Your task to perform on an android device: delete browsing data in the chrome app Image 0: 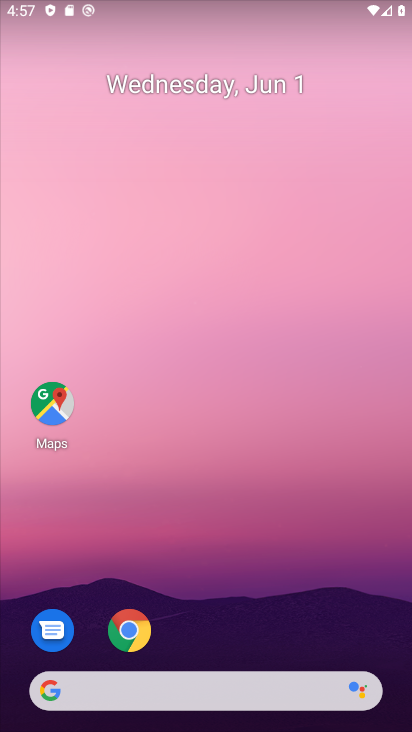
Step 0: click (132, 639)
Your task to perform on an android device: delete browsing data in the chrome app Image 1: 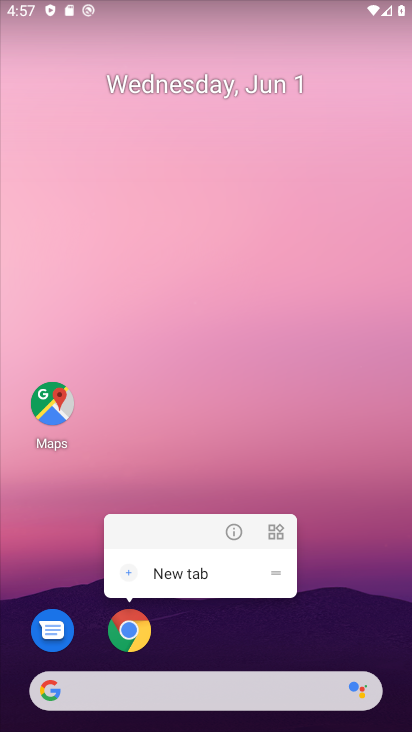
Step 1: click (133, 647)
Your task to perform on an android device: delete browsing data in the chrome app Image 2: 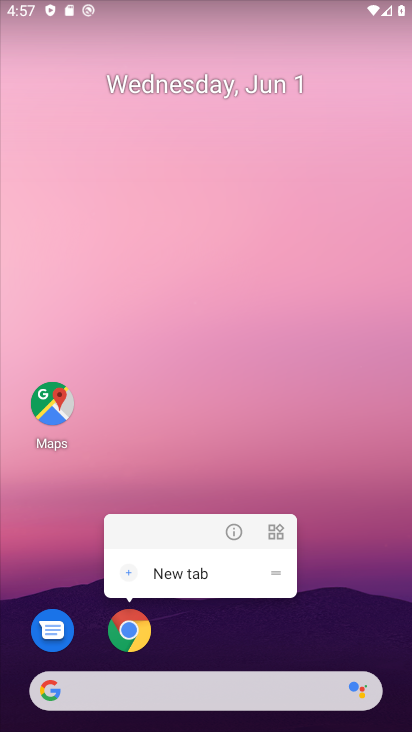
Step 2: click (122, 644)
Your task to perform on an android device: delete browsing data in the chrome app Image 3: 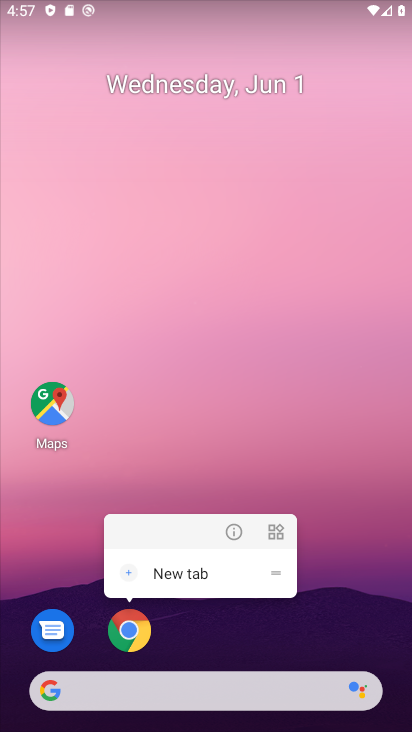
Step 3: click (133, 643)
Your task to perform on an android device: delete browsing data in the chrome app Image 4: 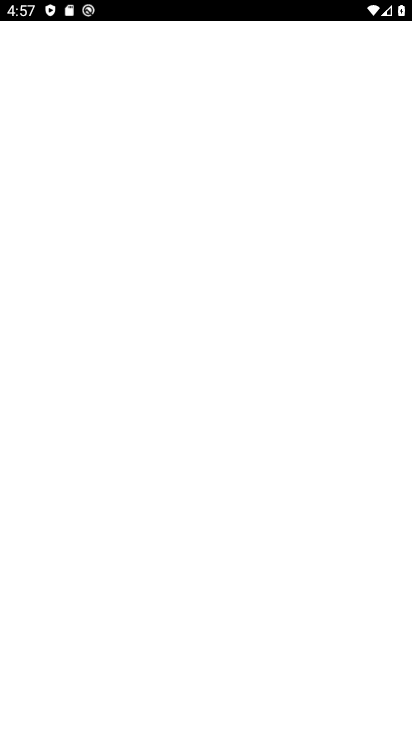
Step 4: click (133, 641)
Your task to perform on an android device: delete browsing data in the chrome app Image 5: 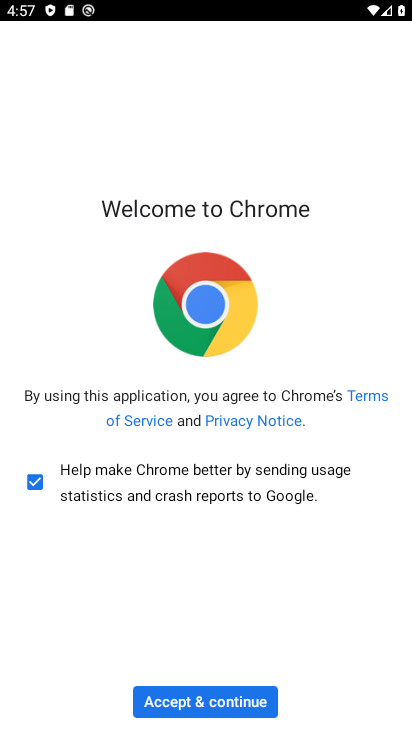
Step 5: click (194, 693)
Your task to perform on an android device: delete browsing data in the chrome app Image 6: 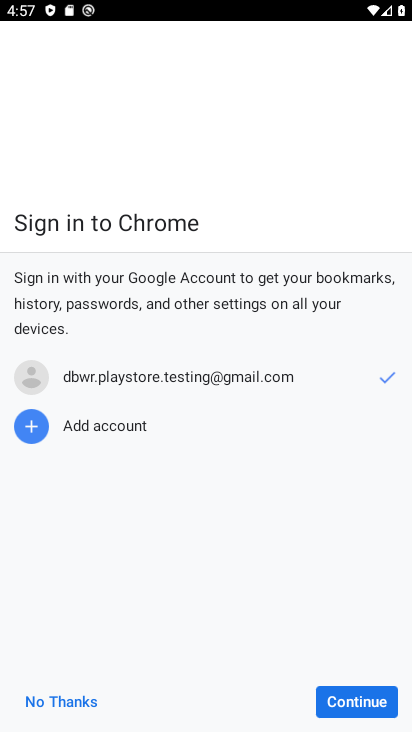
Step 6: click (329, 701)
Your task to perform on an android device: delete browsing data in the chrome app Image 7: 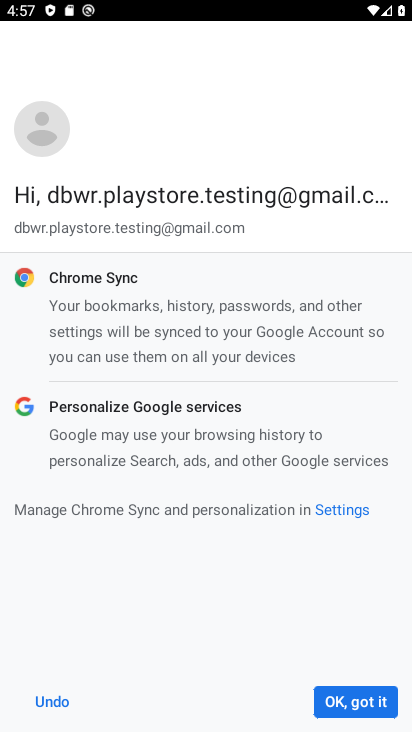
Step 7: click (357, 705)
Your task to perform on an android device: delete browsing data in the chrome app Image 8: 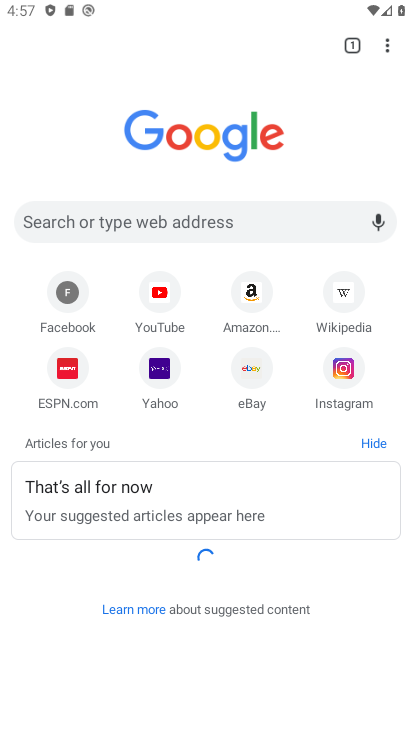
Step 8: drag from (392, 57) to (318, 364)
Your task to perform on an android device: delete browsing data in the chrome app Image 9: 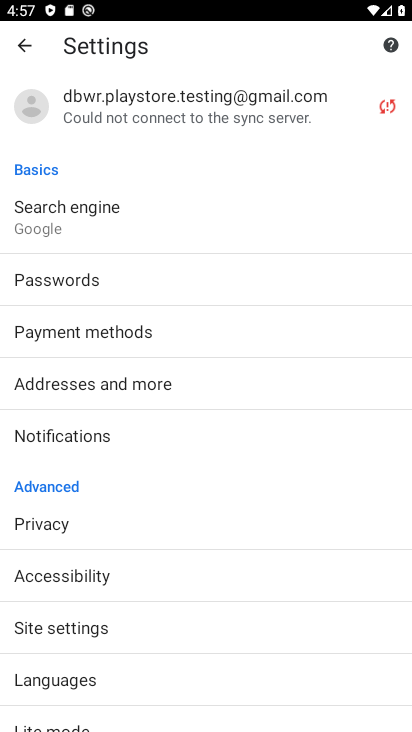
Step 9: drag from (228, 600) to (289, 334)
Your task to perform on an android device: delete browsing data in the chrome app Image 10: 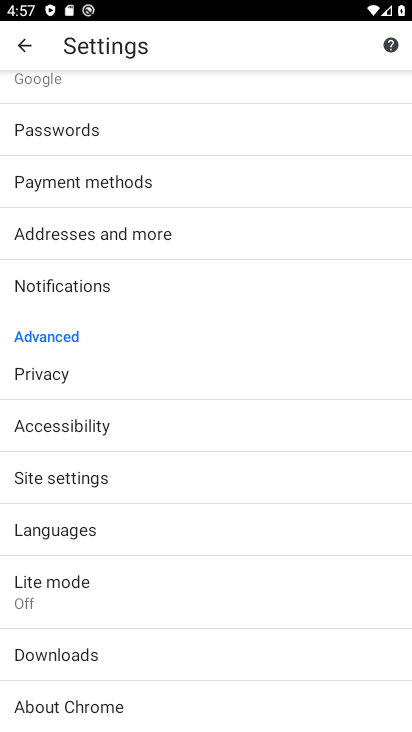
Step 10: click (142, 365)
Your task to perform on an android device: delete browsing data in the chrome app Image 11: 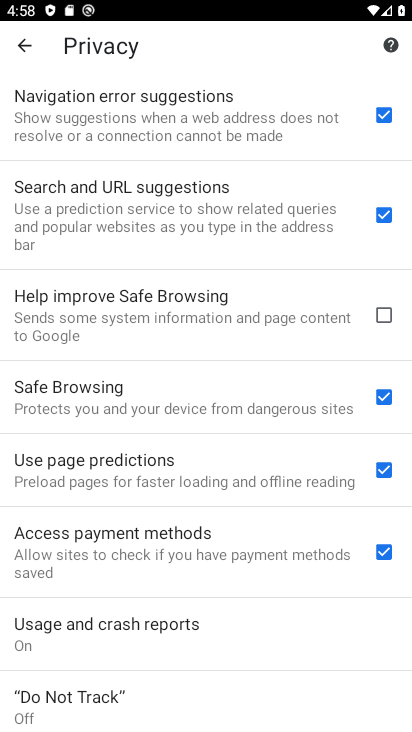
Step 11: drag from (176, 589) to (265, 193)
Your task to perform on an android device: delete browsing data in the chrome app Image 12: 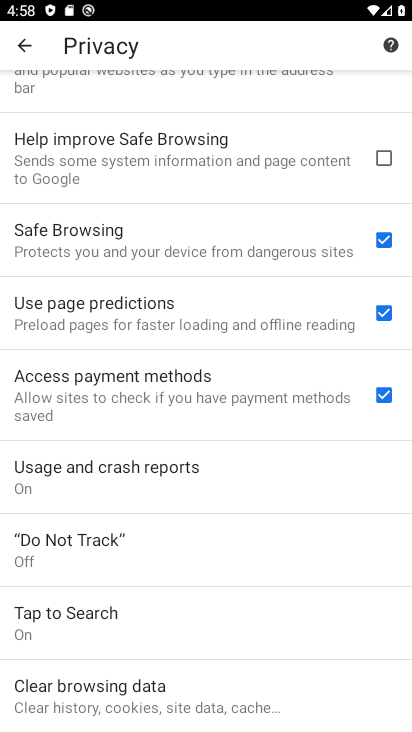
Step 12: click (153, 700)
Your task to perform on an android device: delete browsing data in the chrome app Image 13: 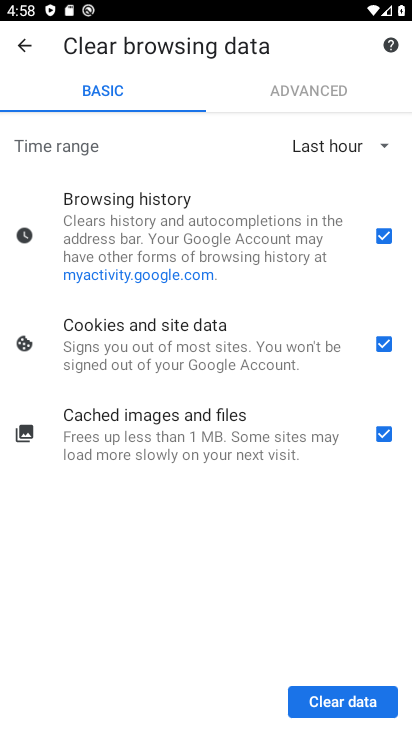
Step 13: click (338, 699)
Your task to perform on an android device: delete browsing data in the chrome app Image 14: 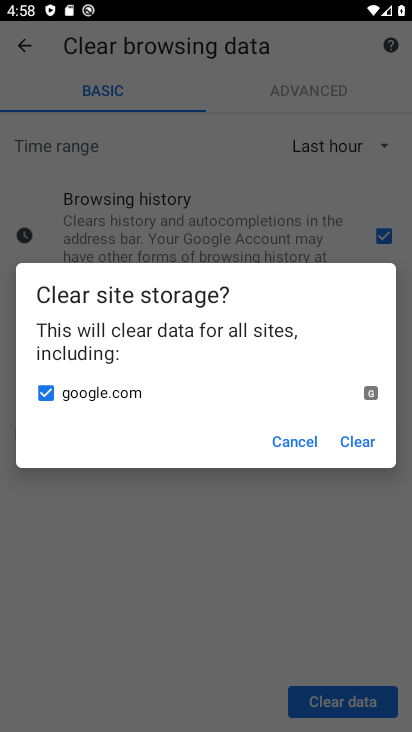
Step 14: click (371, 427)
Your task to perform on an android device: delete browsing data in the chrome app Image 15: 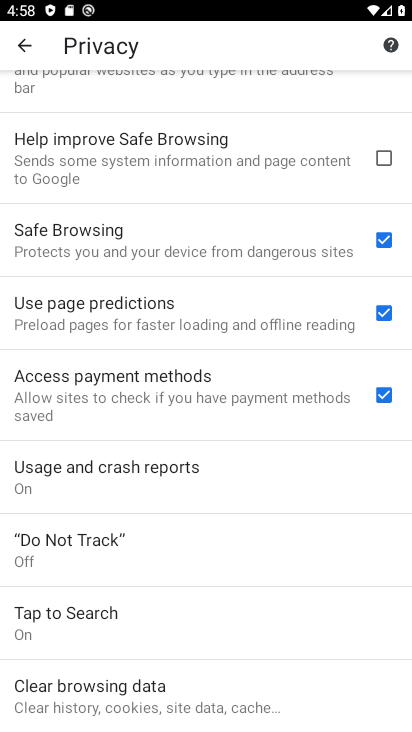
Step 15: task complete